Your task to perform on an android device: Open calendar and show me the third week of next month Image 0: 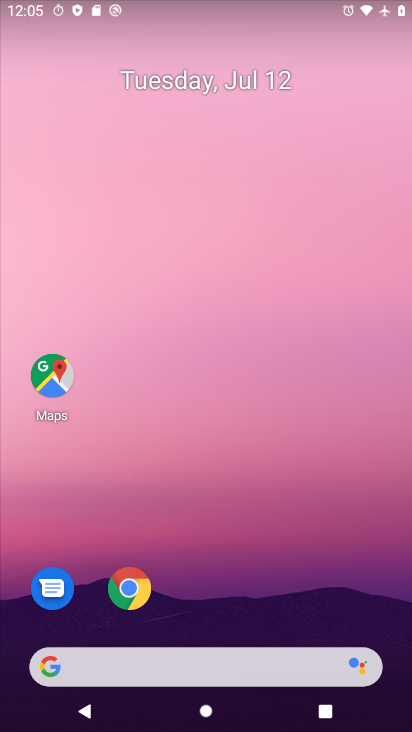
Step 0: drag from (166, 645) to (242, 98)
Your task to perform on an android device: Open calendar and show me the third week of next month Image 1: 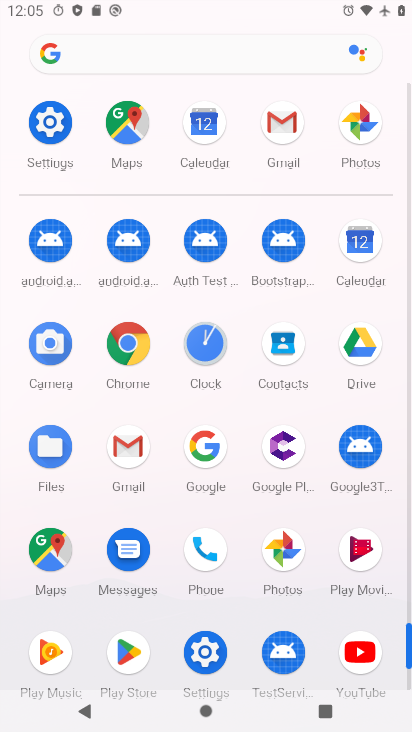
Step 1: click (356, 248)
Your task to perform on an android device: Open calendar and show me the third week of next month Image 2: 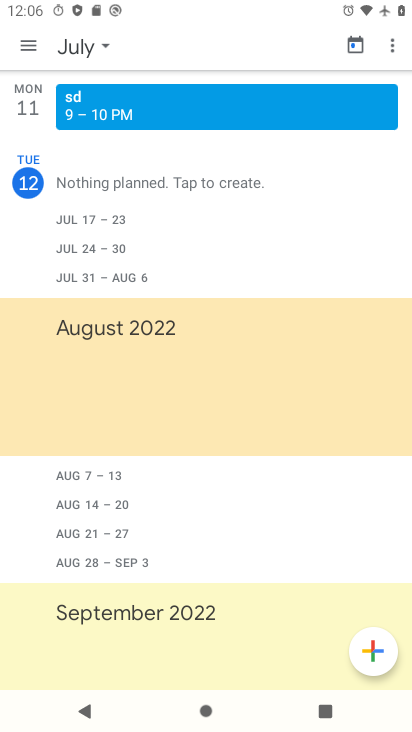
Step 2: click (82, 45)
Your task to perform on an android device: Open calendar and show me the third week of next month Image 3: 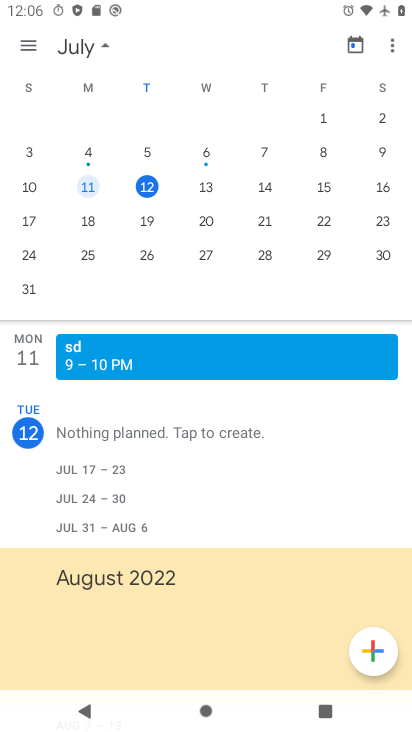
Step 3: drag from (308, 231) to (32, 193)
Your task to perform on an android device: Open calendar and show me the third week of next month Image 4: 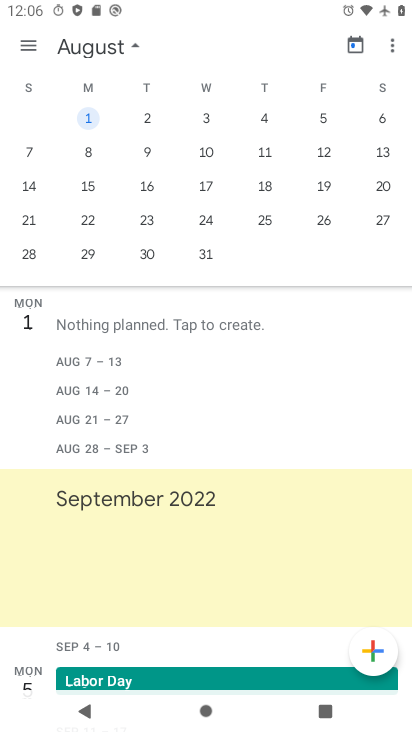
Step 4: click (29, 184)
Your task to perform on an android device: Open calendar and show me the third week of next month Image 5: 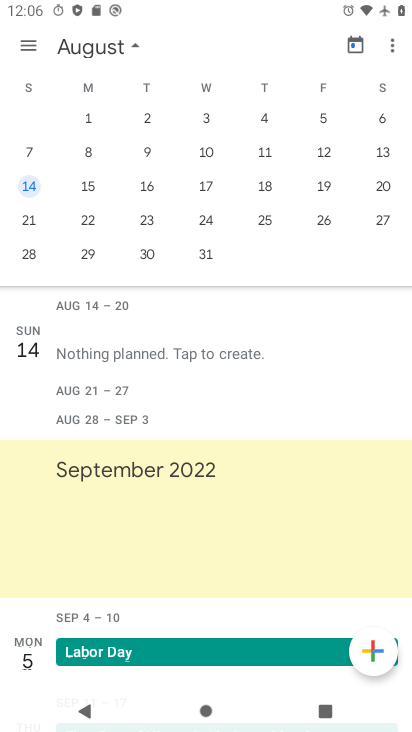
Step 5: click (36, 46)
Your task to perform on an android device: Open calendar and show me the third week of next month Image 6: 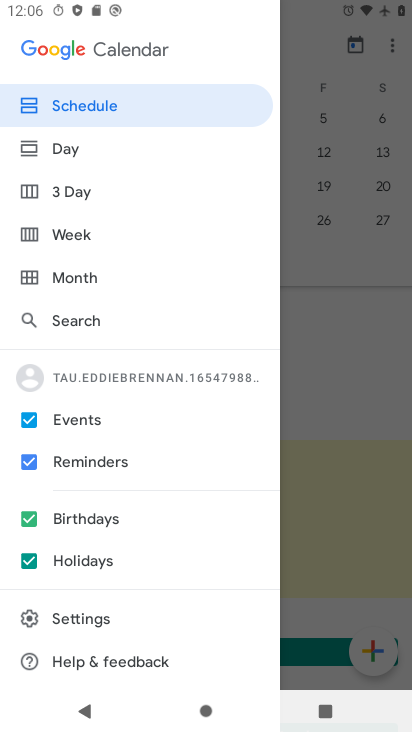
Step 6: click (67, 238)
Your task to perform on an android device: Open calendar and show me the third week of next month Image 7: 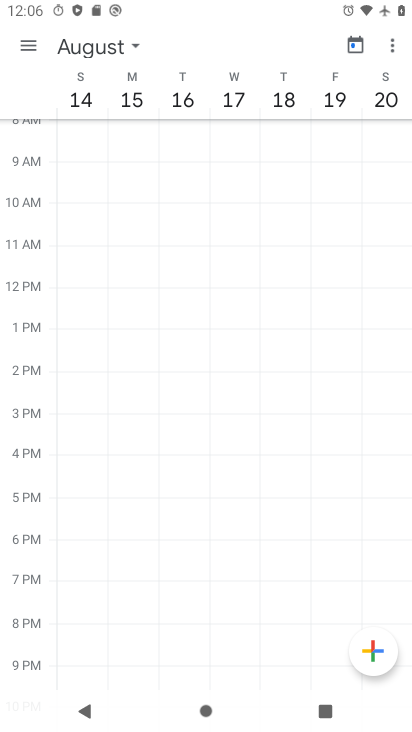
Step 7: task complete